Your task to perform on an android device: uninstall "Adobe Acrobat Reader" Image 0: 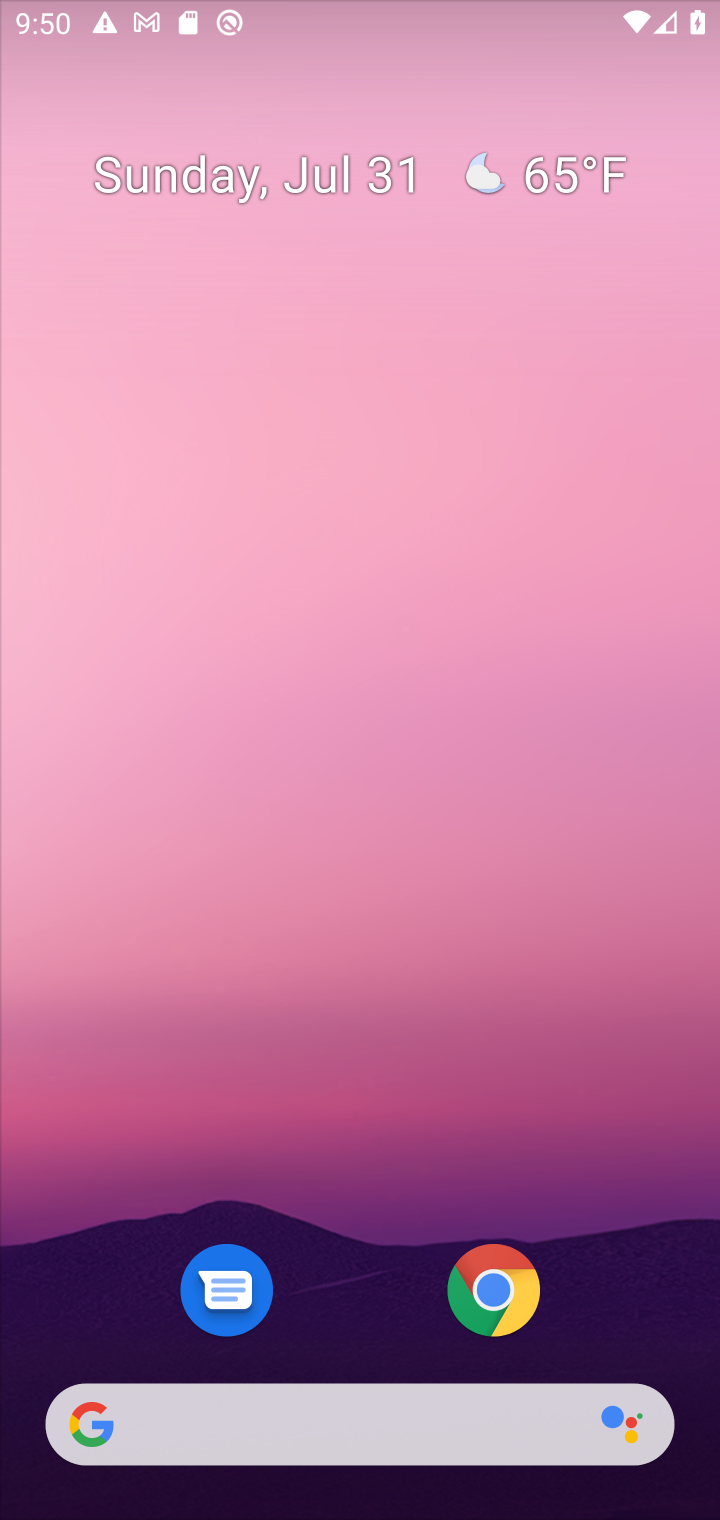
Step 0: press home button
Your task to perform on an android device: uninstall "Adobe Acrobat Reader" Image 1: 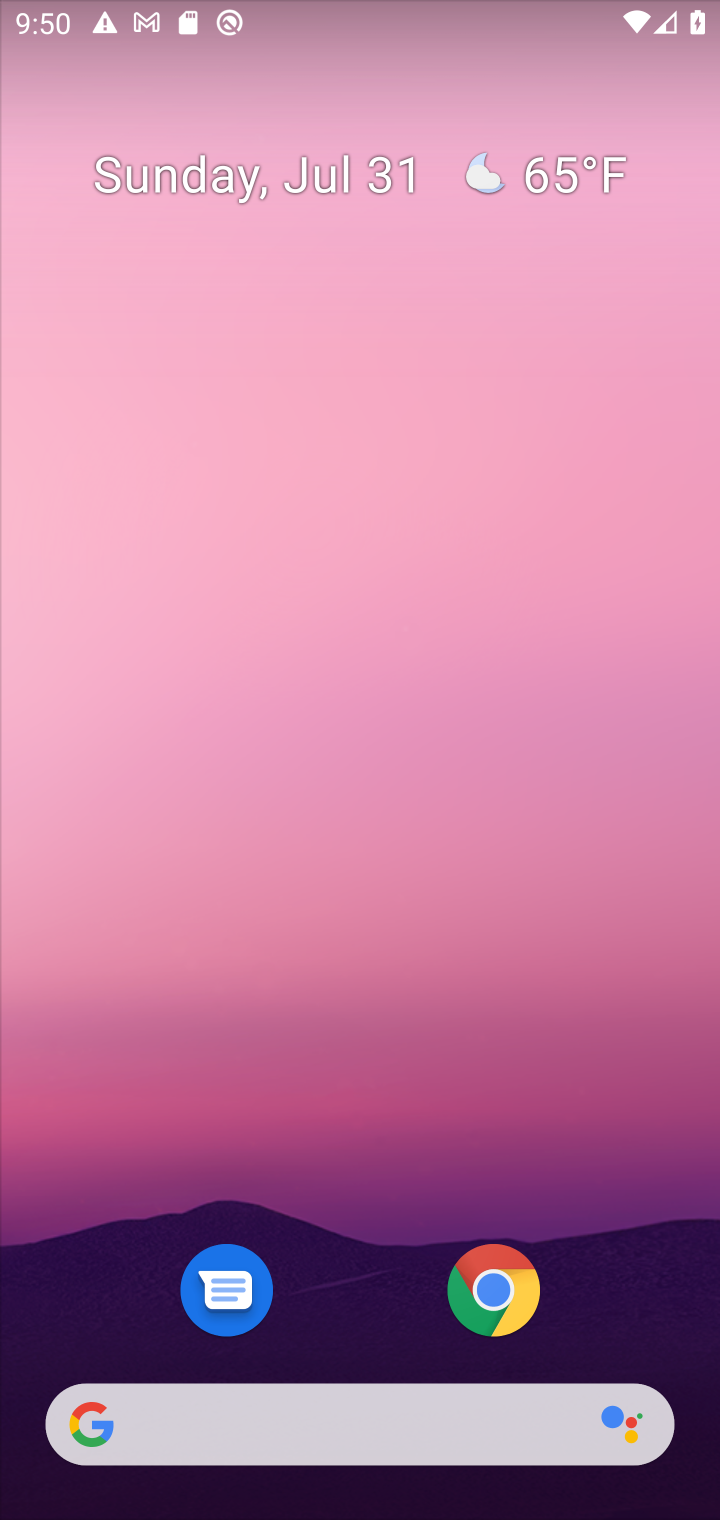
Step 1: drag from (596, 1089) to (577, 248)
Your task to perform on an android device: uninstall "Adobe Acrobat Reader" Image 2: 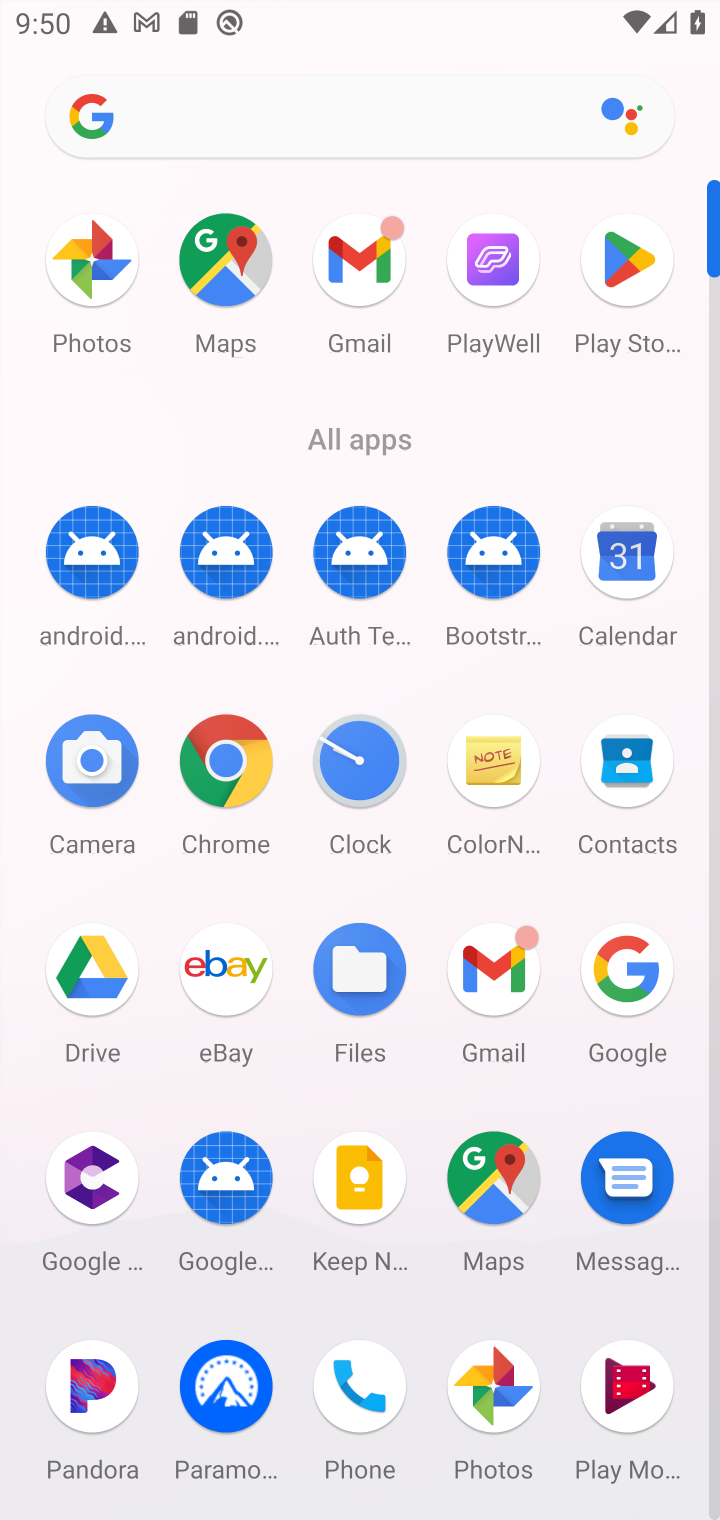
Step 2: click (623, 254)
Your task to perform on an android device: uninstall "Adobe Acrobat Reader" Image 3: 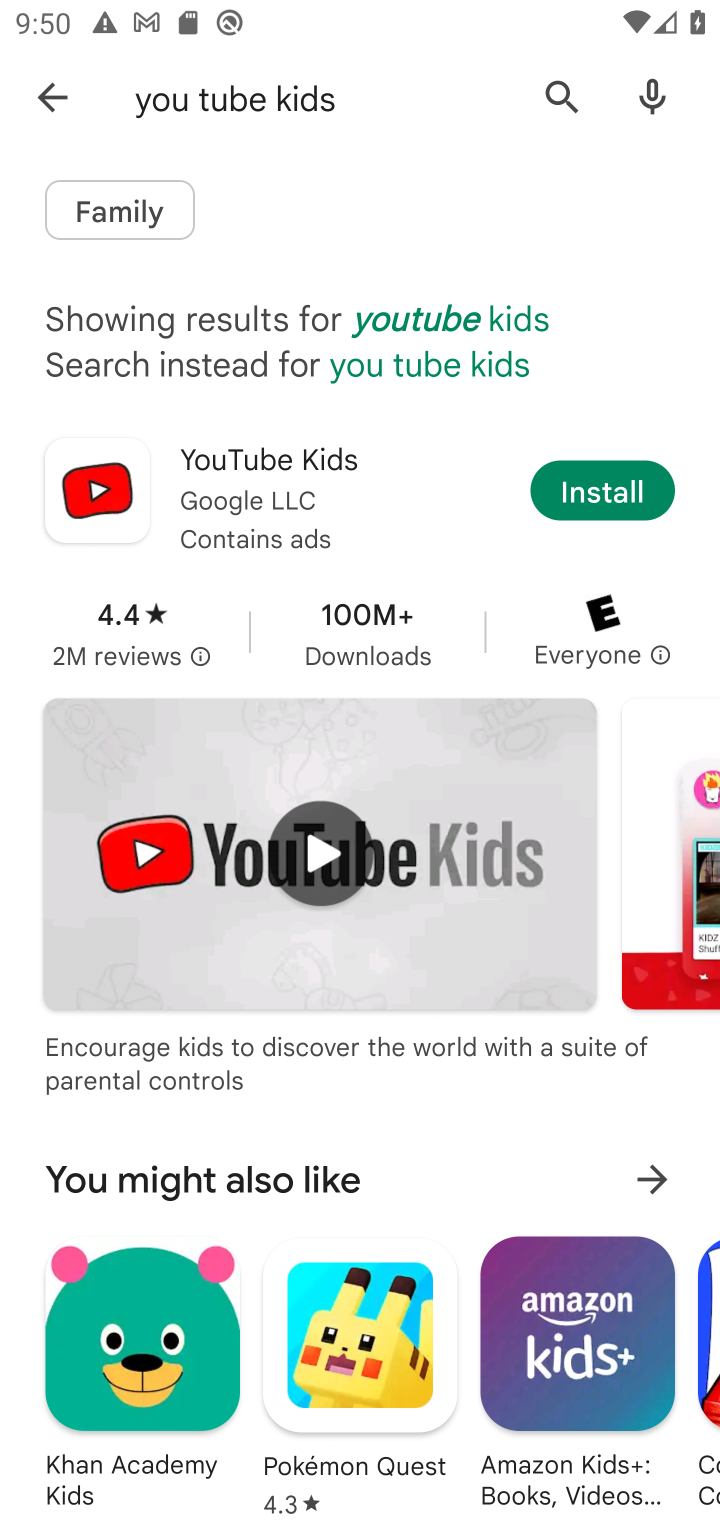
Step 3: click (557, 84)
Your task to perform on an android device: uninstall "Adobe Acrobat Reader" Image 4: 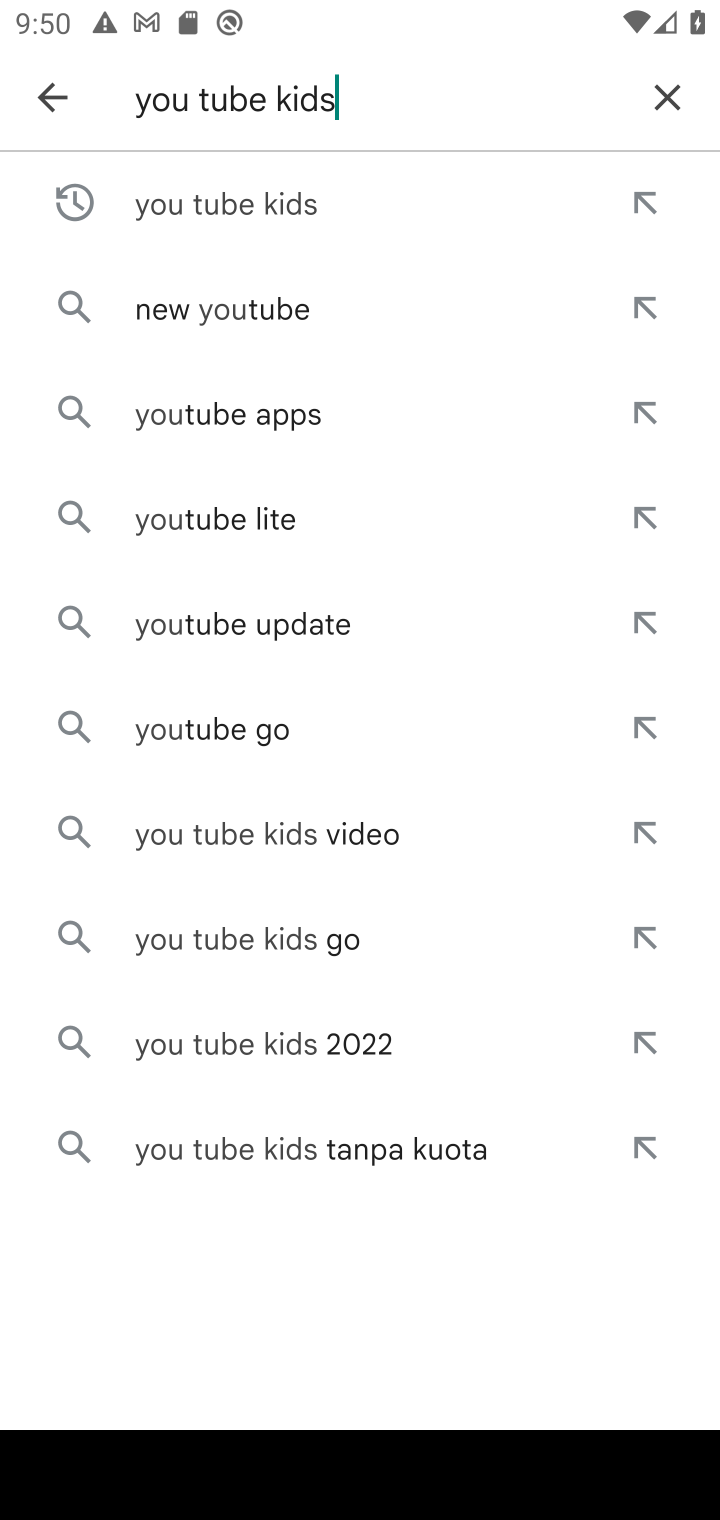
Step 4: click (677, 94)
Your task to perform on an android device: uninstall "Adobe Acrobat Reader" Image 5: 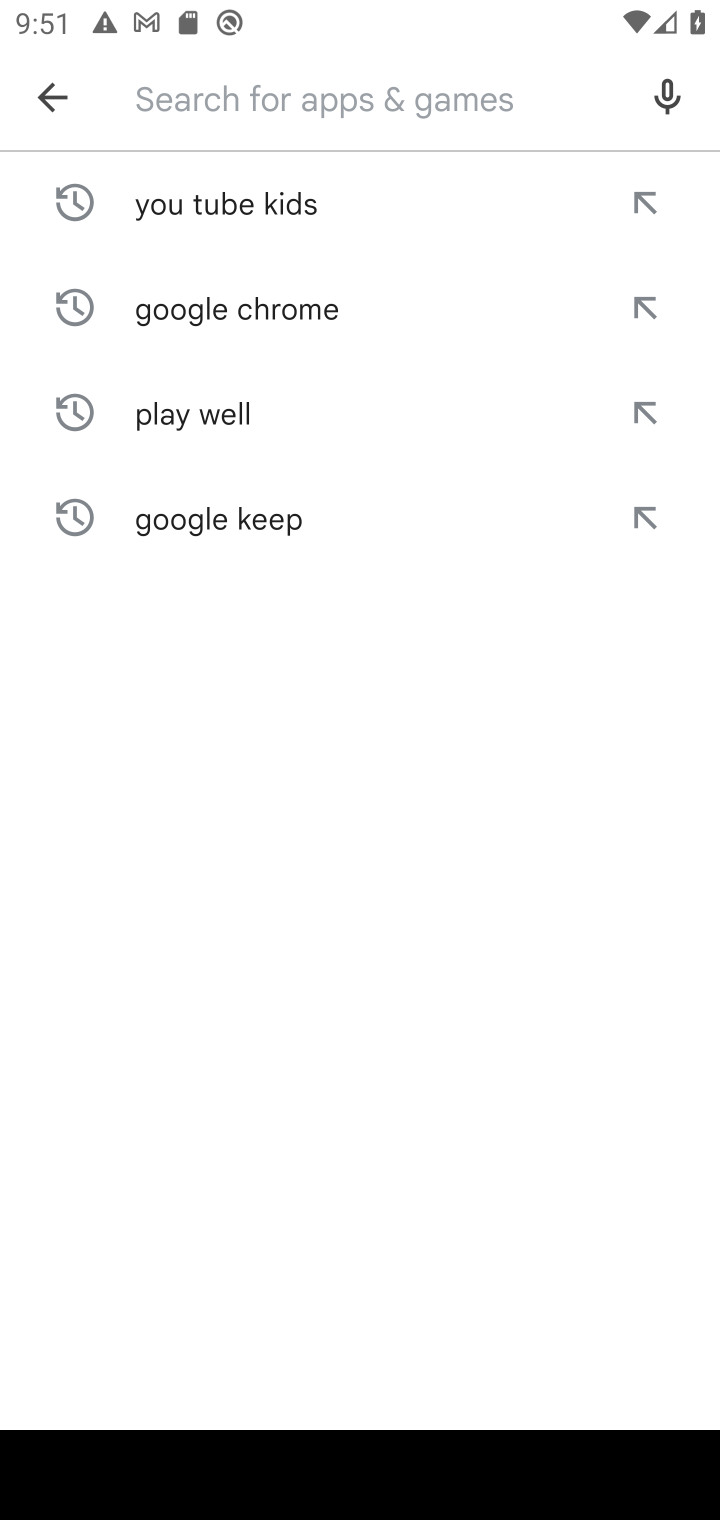
Step 5: type "adobe acrobat reader"
Your task to perform on an android device: uninstall "Adobe Acrobat Reader" Image 6: 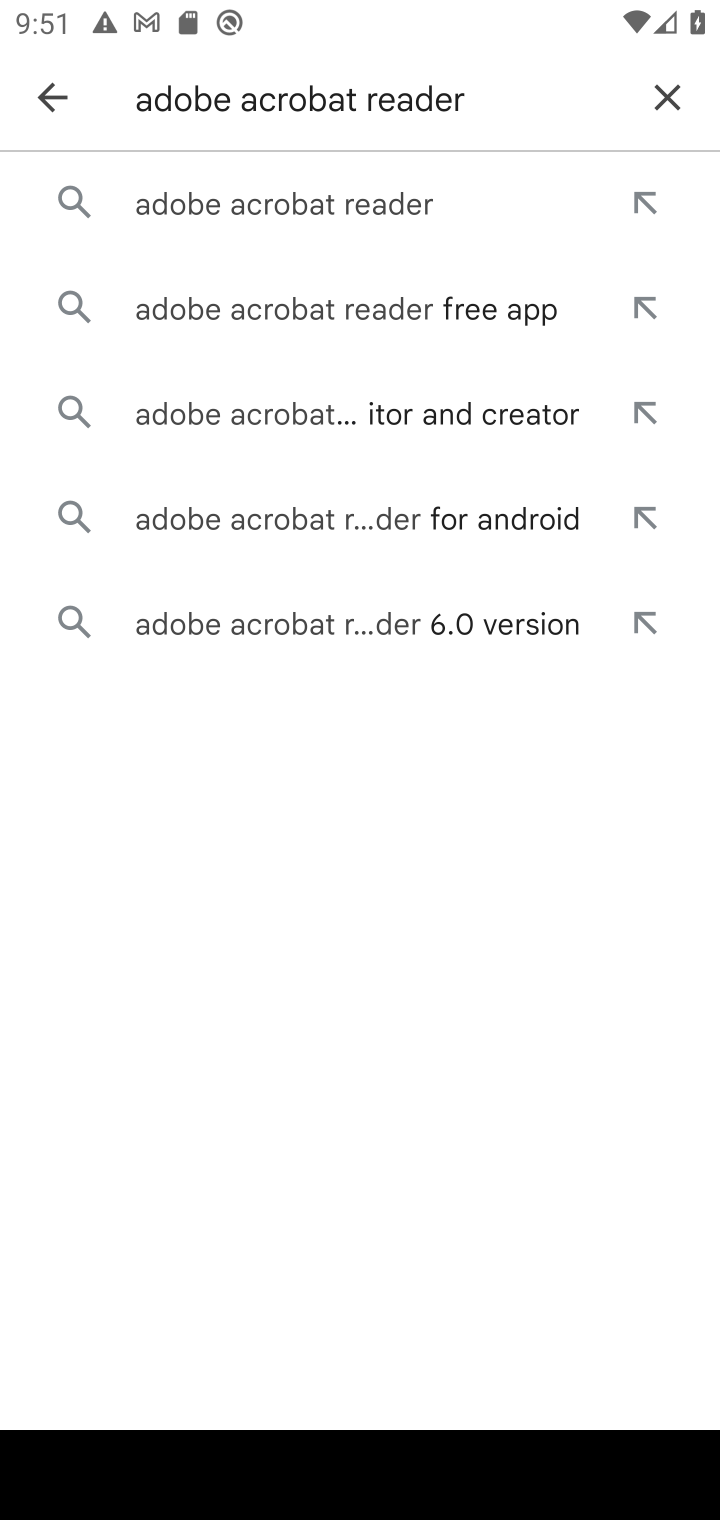
Step 6: click (350, 211)
Your task to perform on an android device: uninstall "Adobe Acrobat Reader" Image 7: 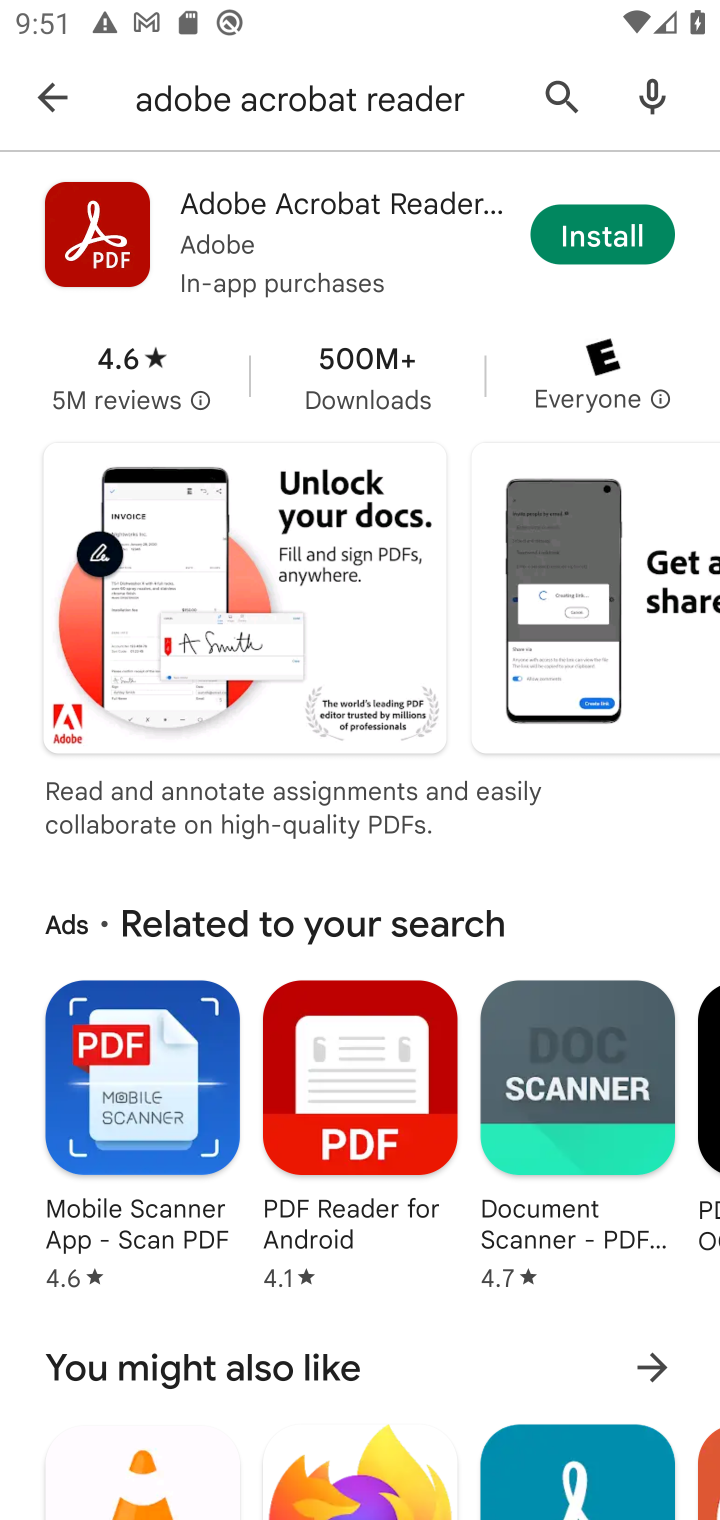
Step 7: task complete